Your task to perform on an android device: turn off picture-in-picture Image 0: 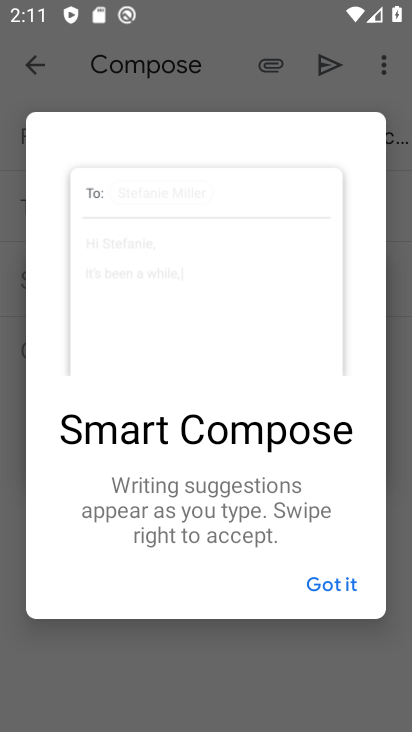
Step 0: press home button
Your task to perform on an android device: turn off picture-in-picture Image 1: 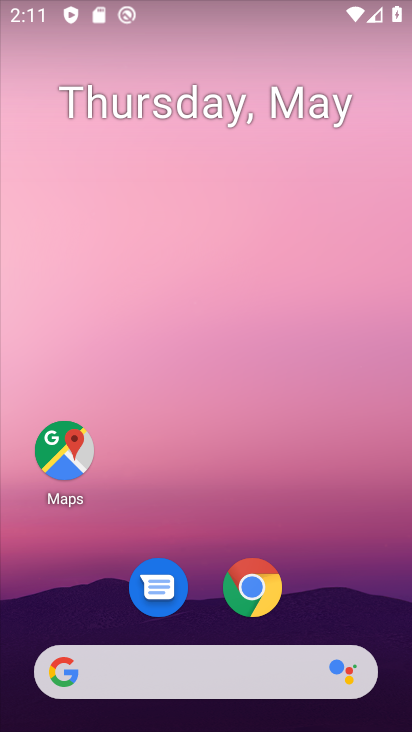
Step 1: click (268, 589)
Your task to perform on an android device: turn off picture-in-picture Image 2: 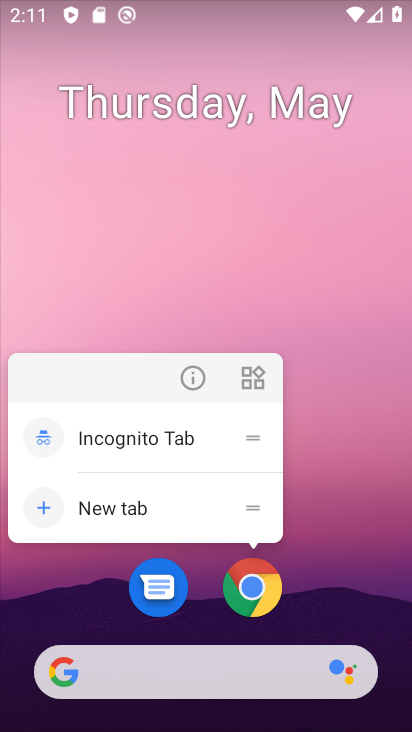
Step 2: click (201, 380)
Your task to perform on an android device: turn off picture-in-picture Image 3: 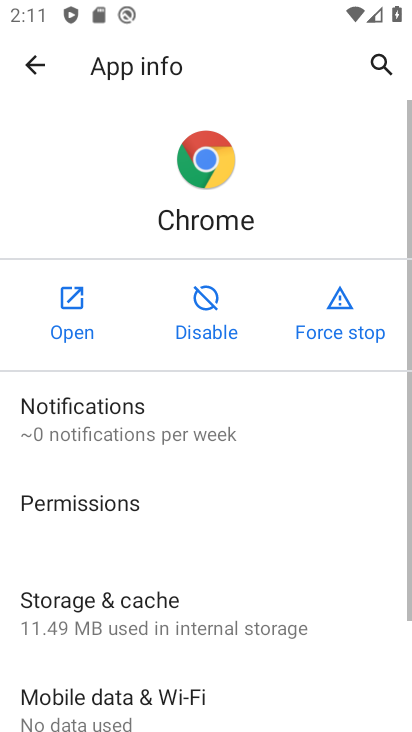
Step 3: drag from (243, 528) to (329, 80)
Your task to perform on an android device: turn off picture-in-picture Image 4: 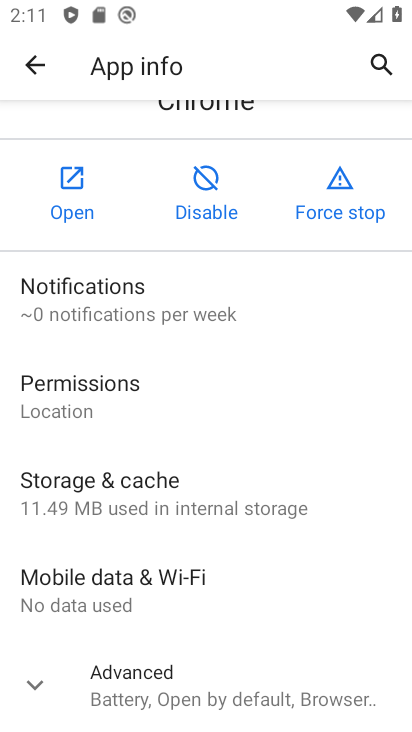
Step 4: click (206, 689)
Your task to perform on an android device: turn off picture-in-picture Image 5: 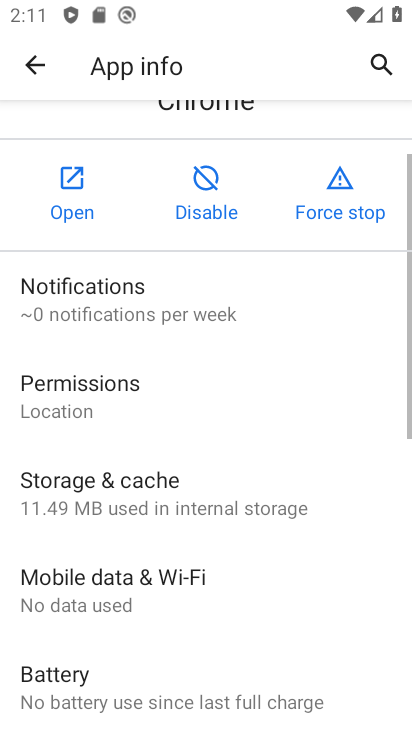
Step 5: drag from (220, 673) to (294, 150)
Your task to perform on an android device: turn off picture-in-picture Image 6: 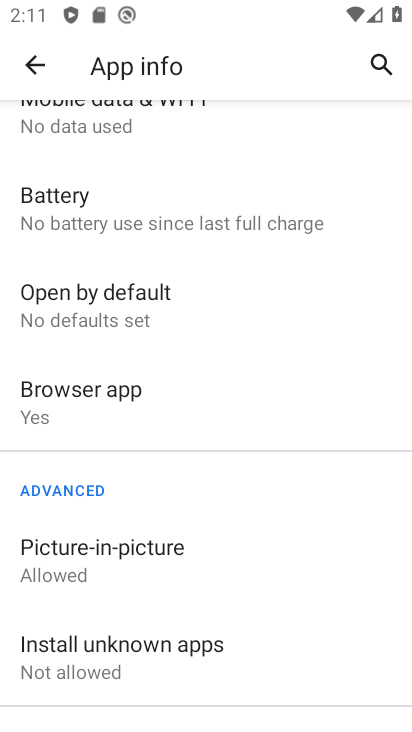
Step 6: click (164, 566)
Your task to perform on an android device: turn off picture-in-picture Image 7: 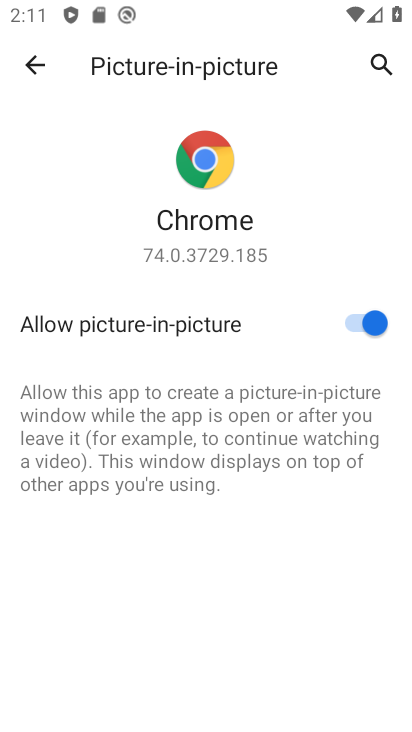
Step 7: click (357, 316)
Your task to perform on an android device: turn off picture-in-picture Image 8: 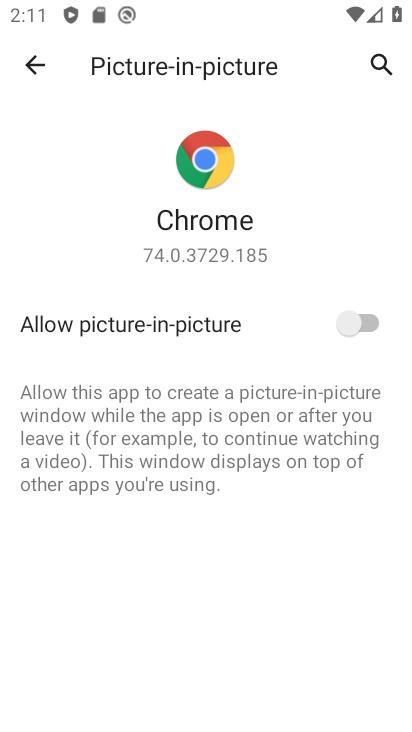
Step 8: task complete